Your task to perform on an android device: Go to location settings Image 0: 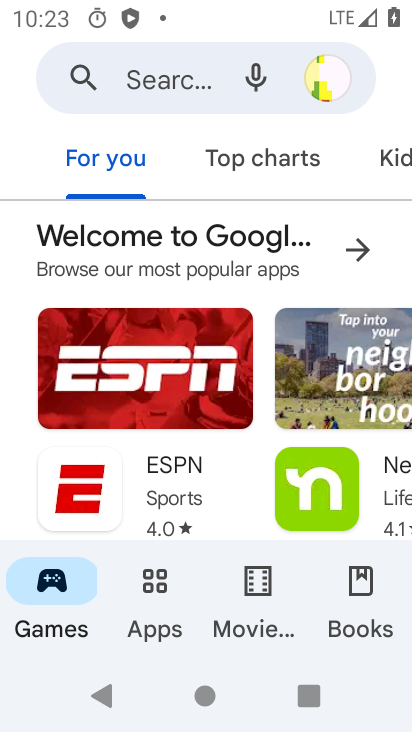
Step 0: press home button
Your task to perform on an android device: Go to location settings Image 1: 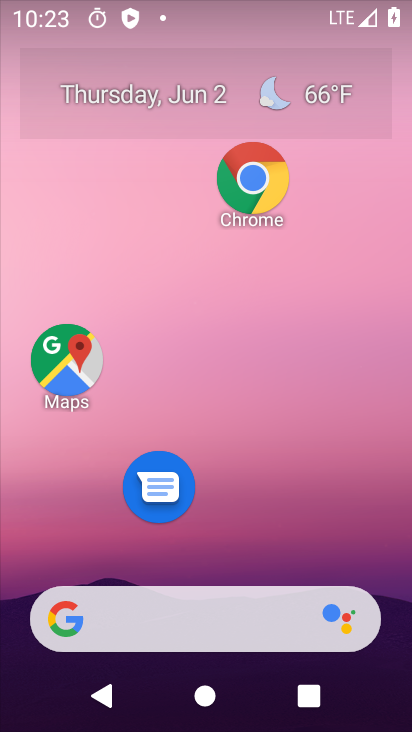
Step 1: drag from (253, 726) to (252, 84)
Your task to perform on an android device: Go to location settings Image 2: 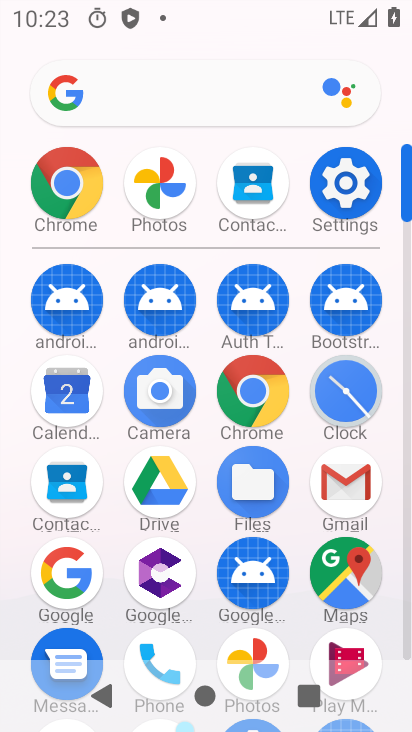
Step 2: click (345, 195)
Your task to perform on an android device: Go to location settings Image 3: 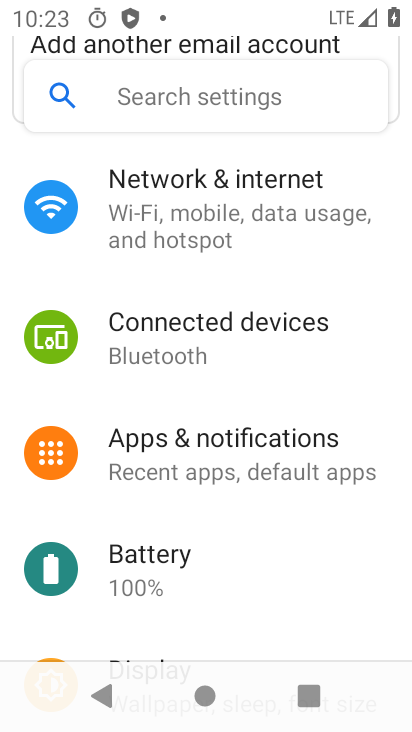
Step 3: drag from (172, 623) to (167, 271)
Your task to perform on an android device: Go to location settings Image 4: 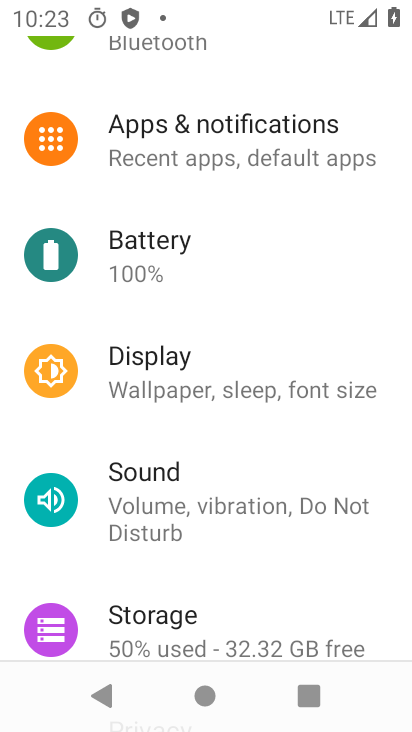
Step 4: drag from (160, 637) to (165, 194)
Your task to perform on an android device: Go to location settings Image 5: 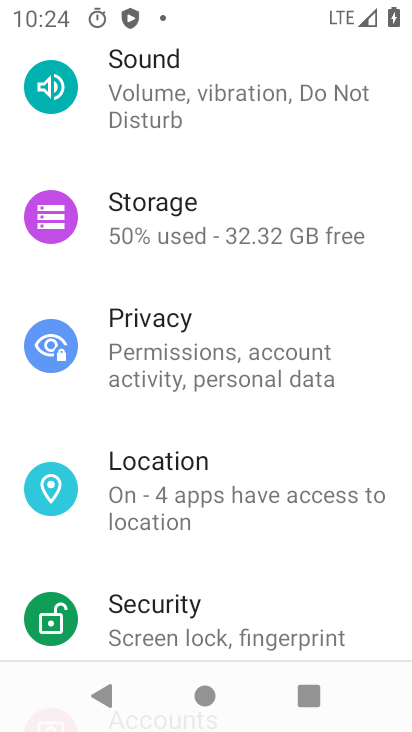
Step 5: click (164, 485)
Your task to perform on an android device: Go to location settings Image 6: 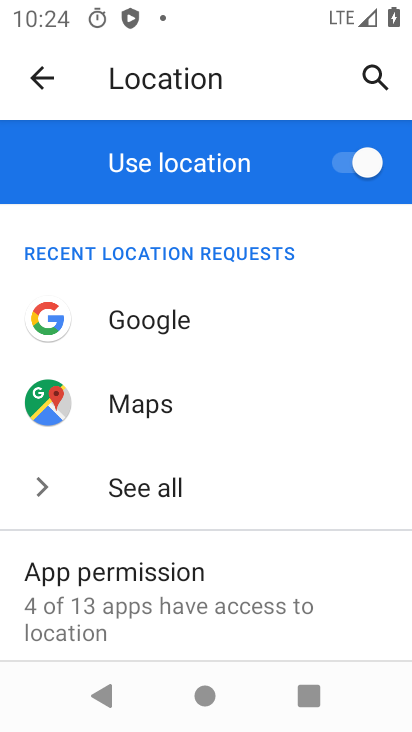
Step 6: task complete